Your task to perform on an android device: Open Google Maps Image 0: 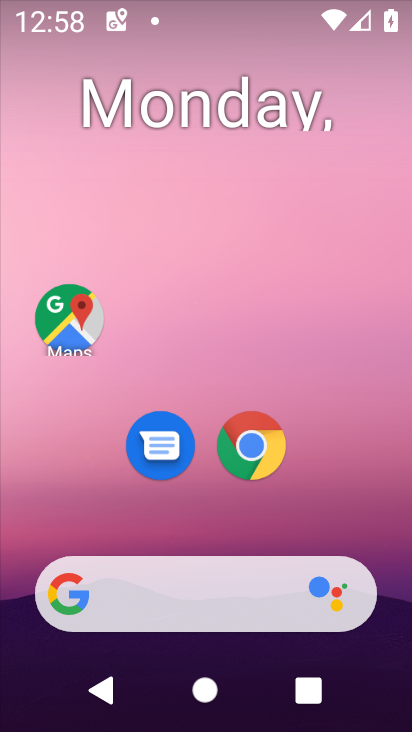
Step 0: click (69, 319)
Your task to perform on an android device: Open Google Maps Image 1: 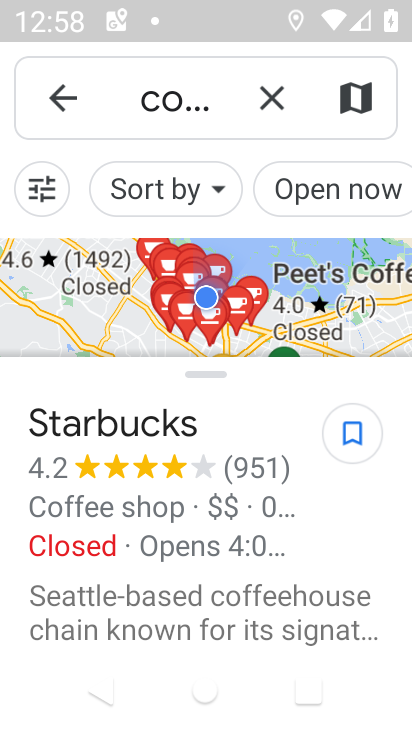
Step 1: click (271, 89)
Your task to perform on an android device: Open Google Maps Image 2: 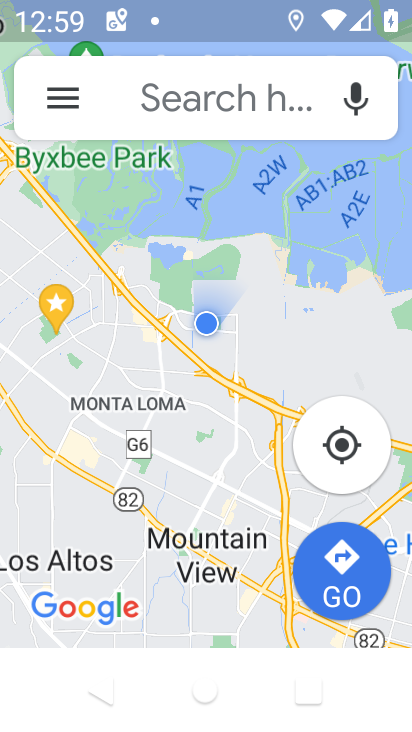
Step 2: task complete